Your task to perform on an android device: toggle wifi Image 0: 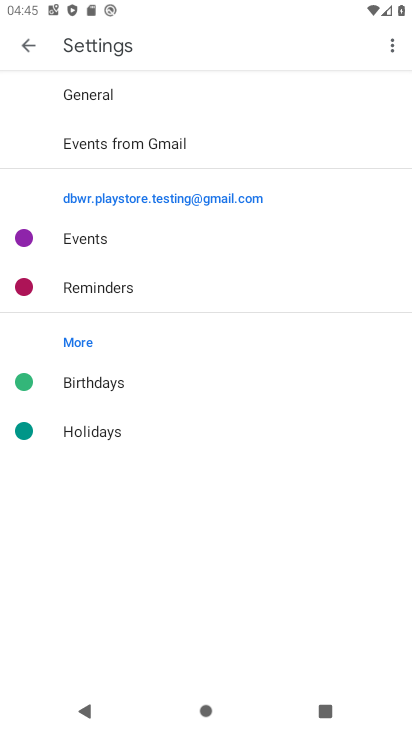
Step 0: press back button
Your task to perform on an android device: toggle wifi Image 1: 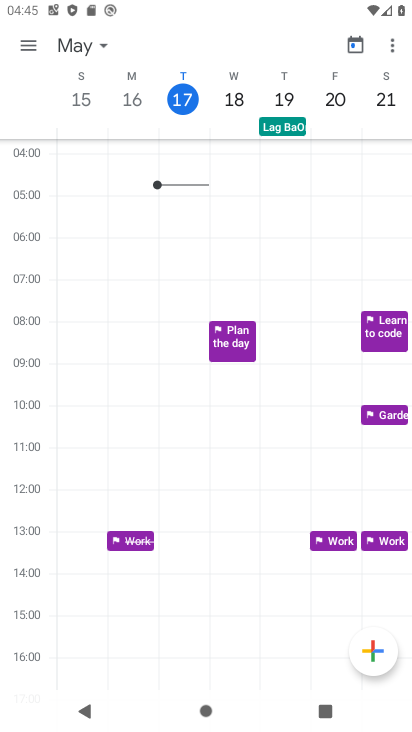
Step 1: press back button
Your task to perform on an android device: toggle wifi Image 2: 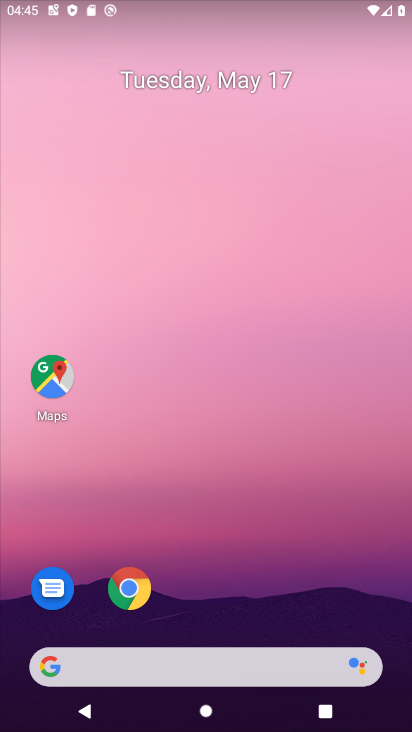
Step 2: drag from (244, 582) to (176, 159)
Your task to perform on an android device: toggle wifi Image 3: 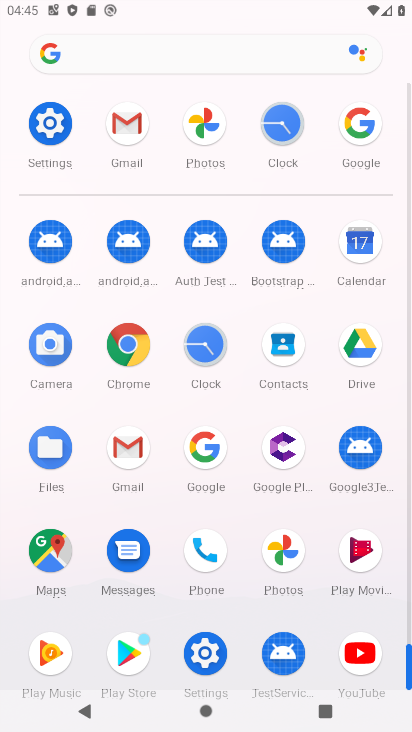
Step 3: click (204, 649)
Your task to perform on an android device: toggle wifi Image 4: 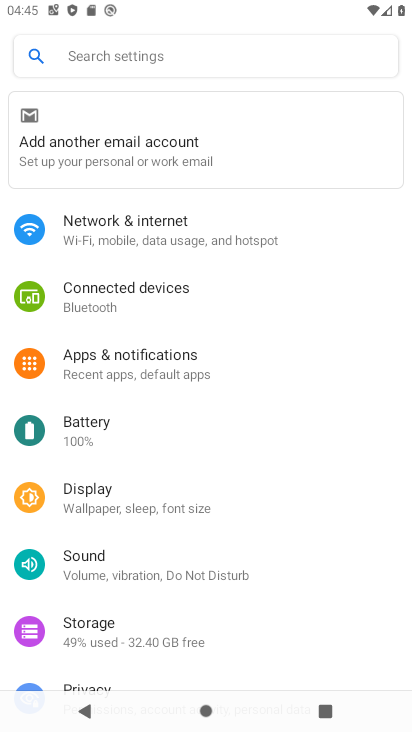
Step 4: click (143, 231)
Your task to perform on an android device: toggle wifi Image 5: 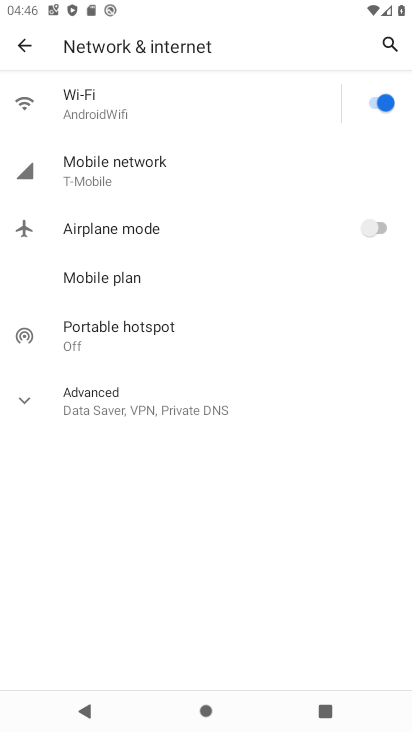
Step 5: click (379, 105)
Your task to perform on an android device: toggle wifi Image 6: 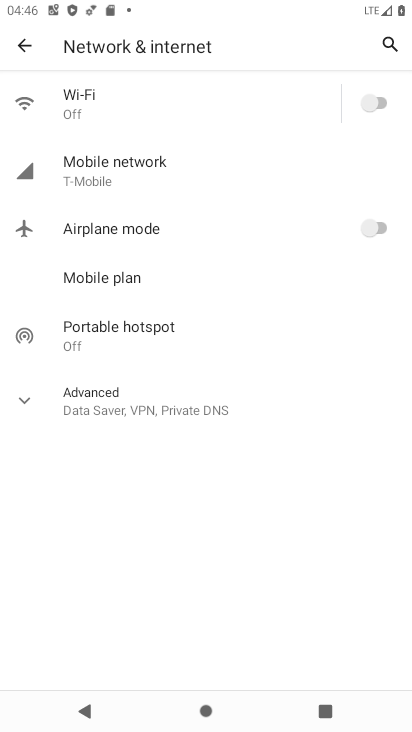
Step 6: task complete